Your task to perform on an android device: Go to accessibility settings Image 0: 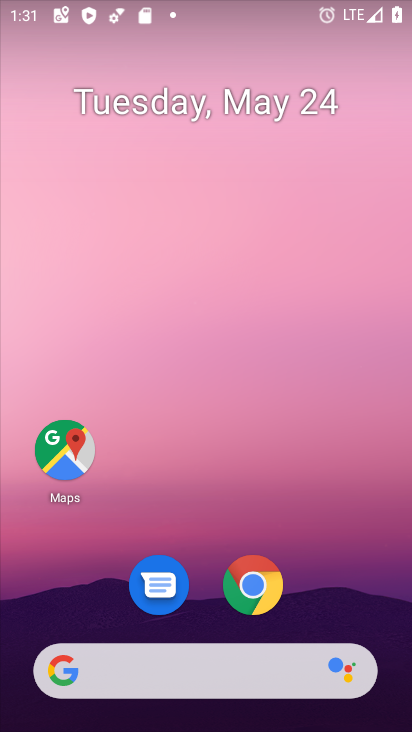
Step 0: drag from (269, 491) to (307, 3)
Your task to perform on an android device: Go to accessibility settings Image 1: 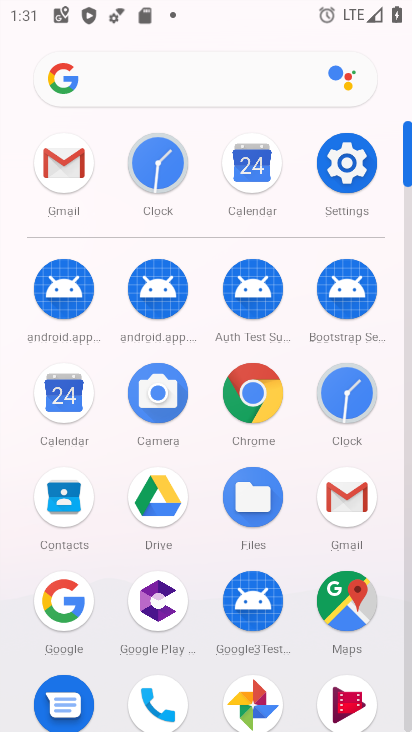
Step 1: click (353, 152)
Your task to perform on an android device: Go to accessibility settings Image 2: 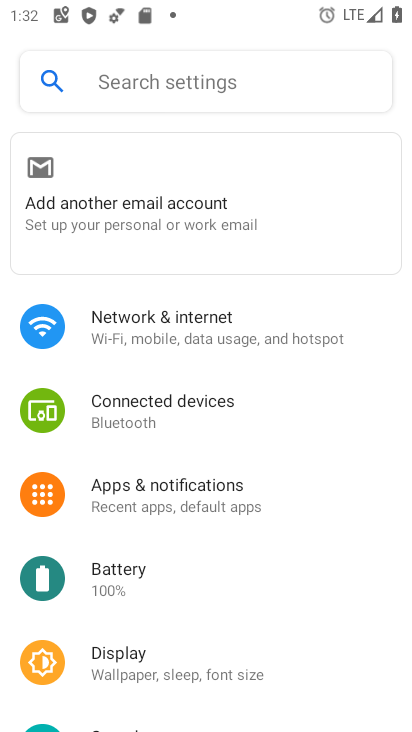
Step 2: drag from (277, 639) to (319, 154)
Your task to perform on an android device: Go to accessibility settings Image 3: 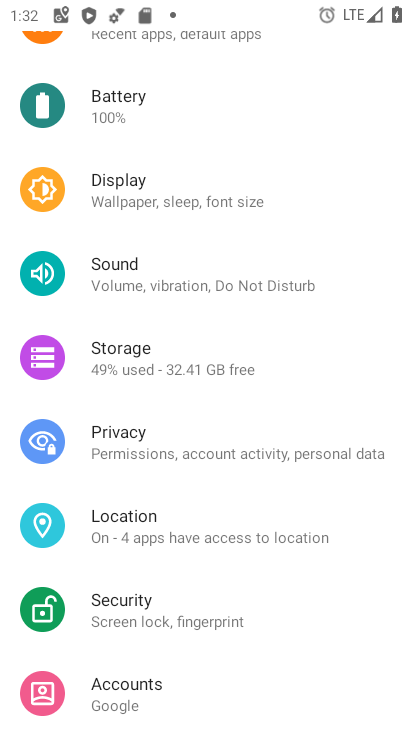
Step 3: drag from (244, 618) to (262, 99)
Your task to perform on an android device: Go to accessibility settings Image 4: 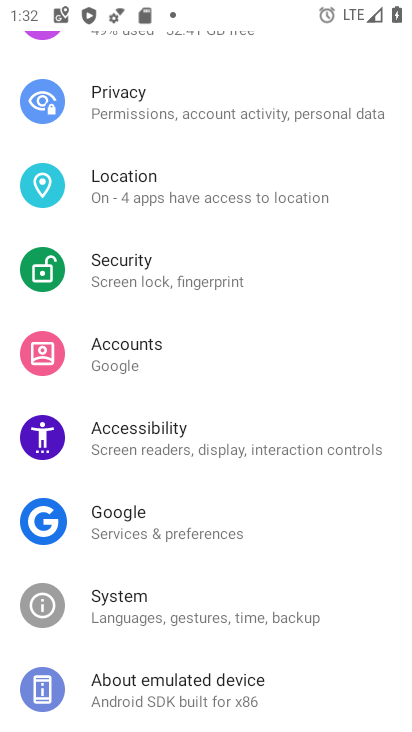
Step 4: click (240, 438)
Your task to perform on an android device: Go to accessibility settings Image 5: 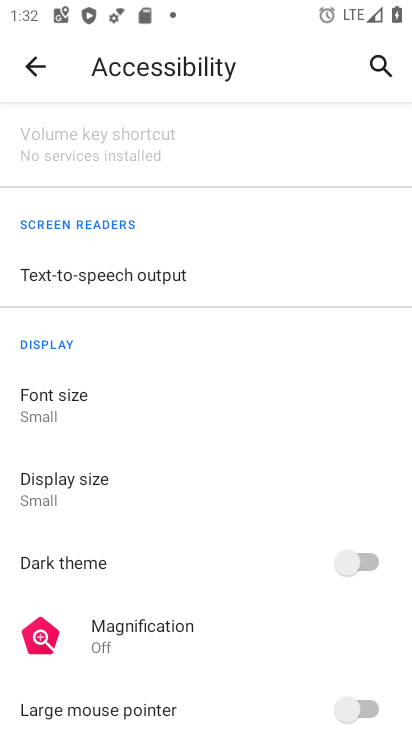
Step 5: task complete